Your task to perform on an android device: Open calendar and show me the third week of next month Image 0: 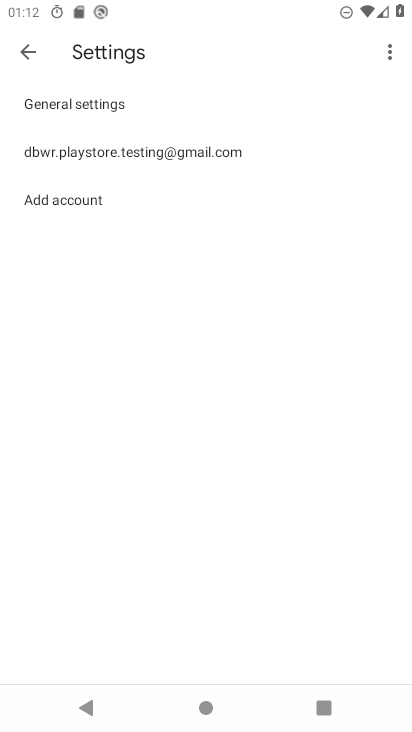
Step 0: press home button
Your task to perform on an android device: Open calendar and show me the third week of next month Image 1: 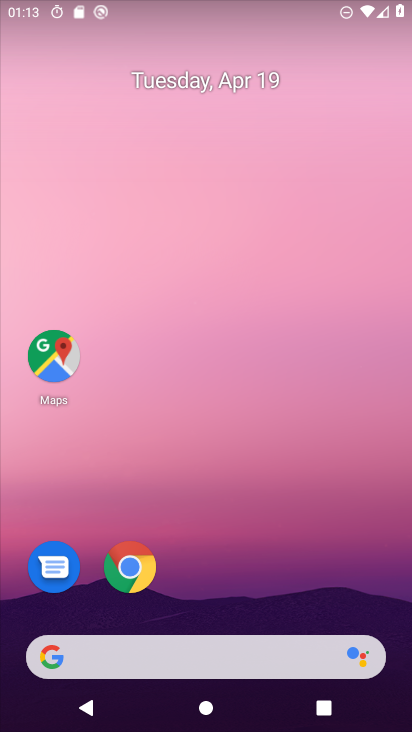
Step 1: drag from (263, 491) to (256, 194)
Your task to perform on an android device: Open calendar and show me the third week of next month Image 2: 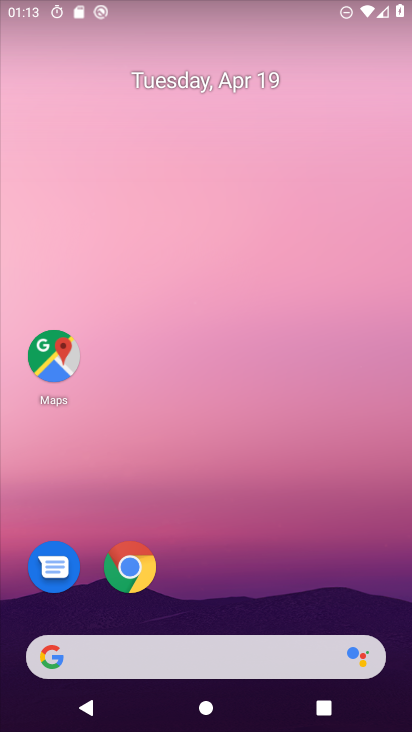
Step 2: drag from (296, 572) to (275, 76)
Your task to perform on an android device: Open calendar and show me the third week of next month Image 3: 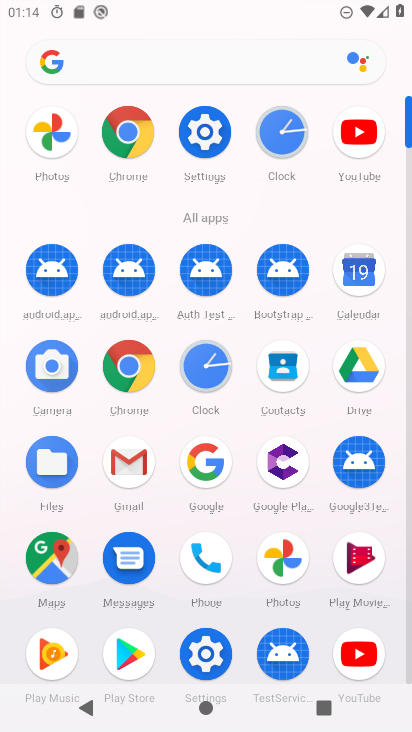
Step 3: click (362, 262)
Your task to perform on an android device: Open calendar and show me the third week of next month Image 4: 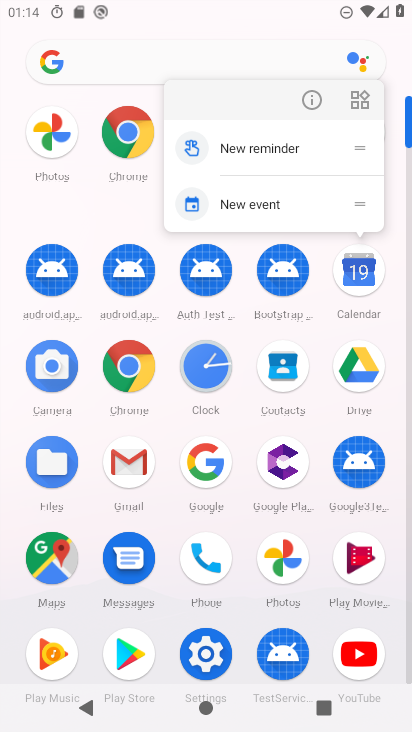
Step 4: click (360, 269)
Your task to perform on an android device: Open calendar and show me the third week of next month Image 5: 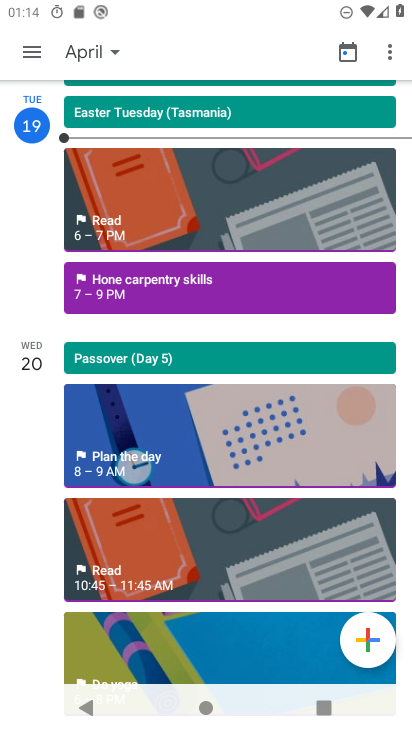
Step 5: click (86, 47)
Your task to perform on an android device: Open calendar and show me the third week of next month Image 6: 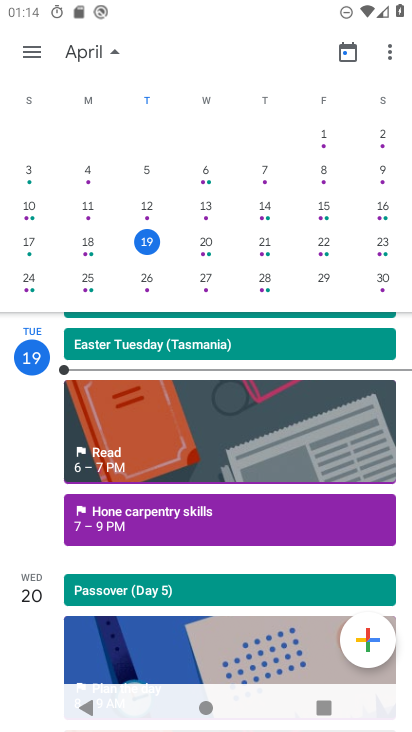
Step 6: drag from (392, 227) to (107, 234)
Your task to perform on an android device: Open calendar and show me the third week of next month Image 7: 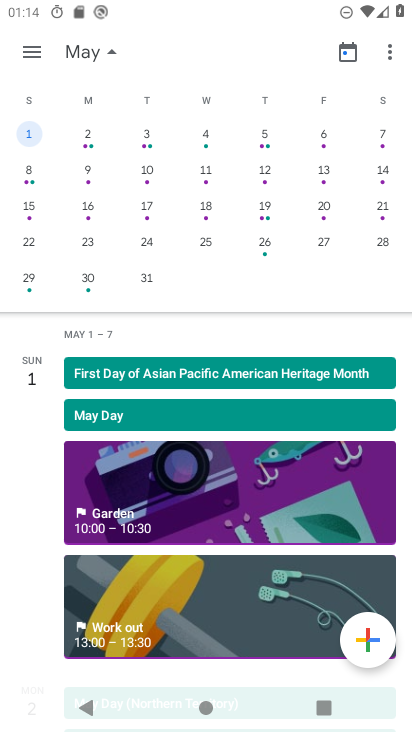
Step 7: click (87, 210)
Your task to perform on an android device: Open calendar and show me the third week of next month Image 8: 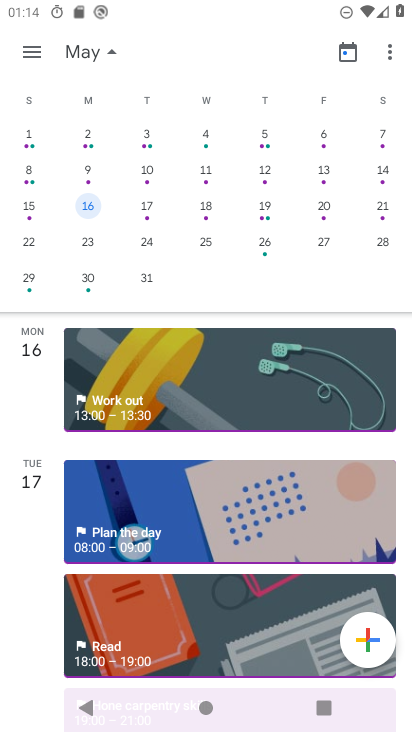
Step 8: task complete